Your task to perform on an android device: Show me recent news Image 0: 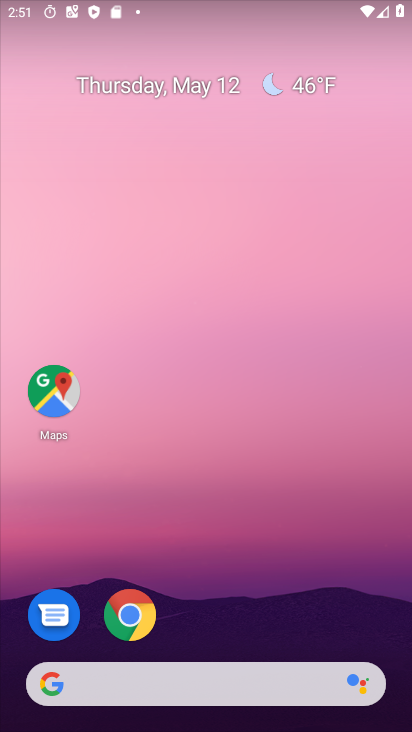
Step 0: drag from (200, 575) to (209, 146)
Your task to perform on an android device: Show me recent news Image 1: 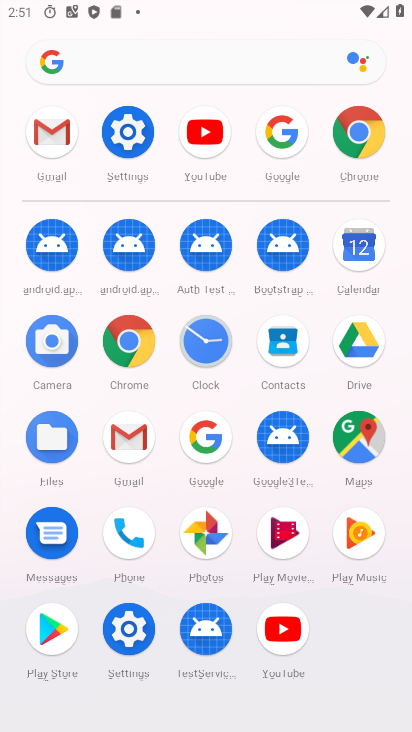
Step 1: click (200, 440)
Your task to perform on an android device: Show me recent news Image 2: 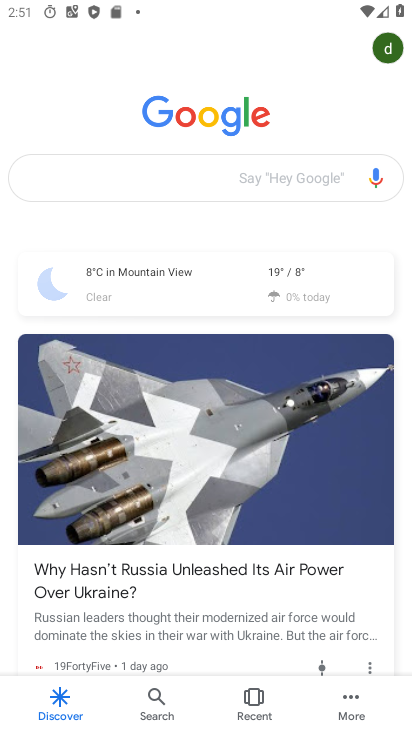
Step 2: click (179, 176)
Your task to perform on an android device: Show me recent news Image 3: 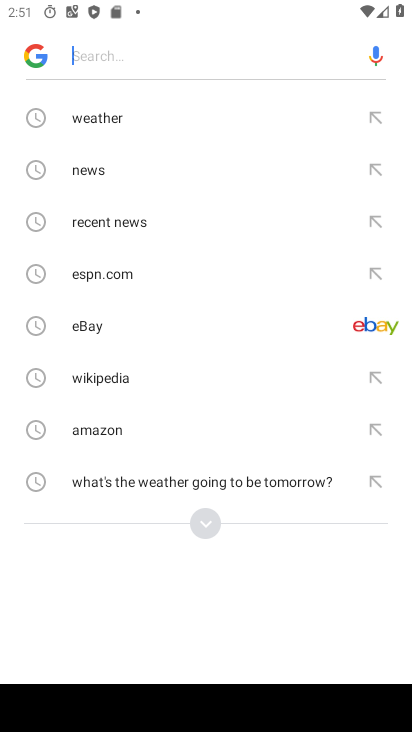
Step 3: click (80, 177)
Your task to perform on an android device: Show me recent news Image 4: 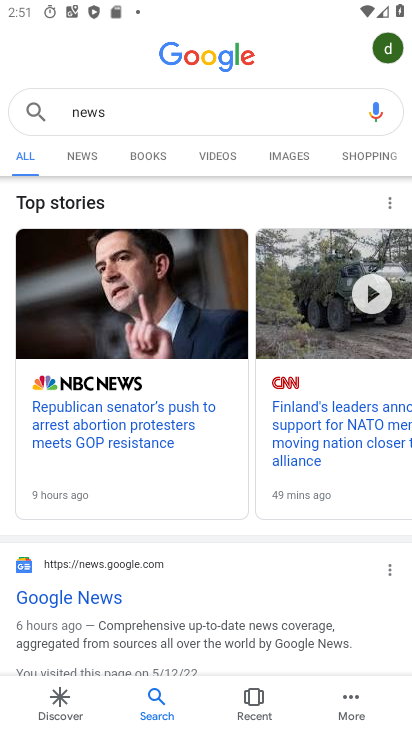
Step 4: task complete